Your task to perform on an android device: What's the weather going to be tomorrow? Image 0: 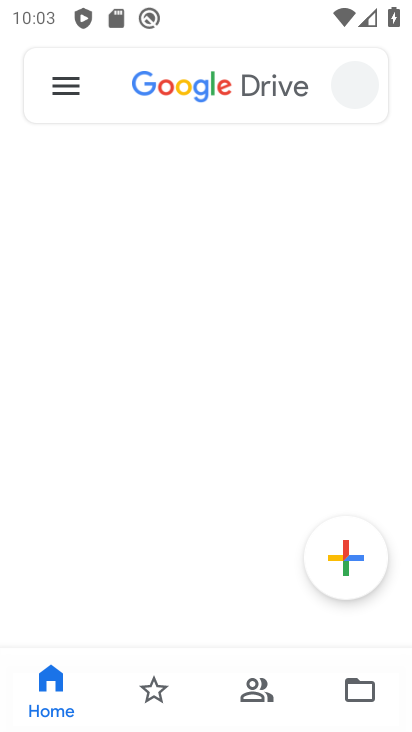
Step 0: drag from (224, 566) to (410, 35)
Your task to perform on an android device: What's the weather going to be tomorrow? Image 1: 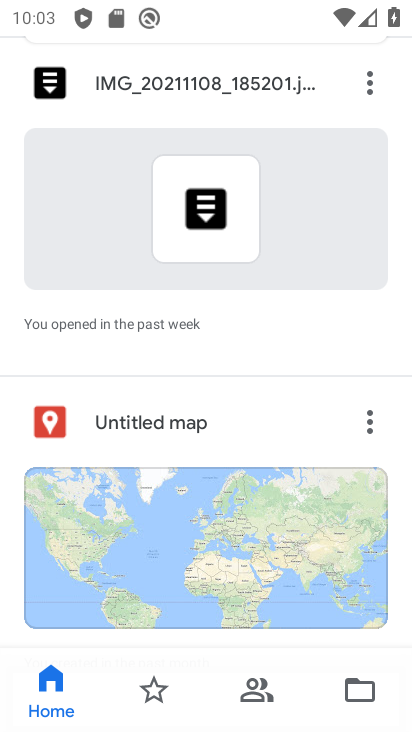
Step 1: press home button
Your task to perform on an android device: What's the weather going to be tomorrow? Image 2: 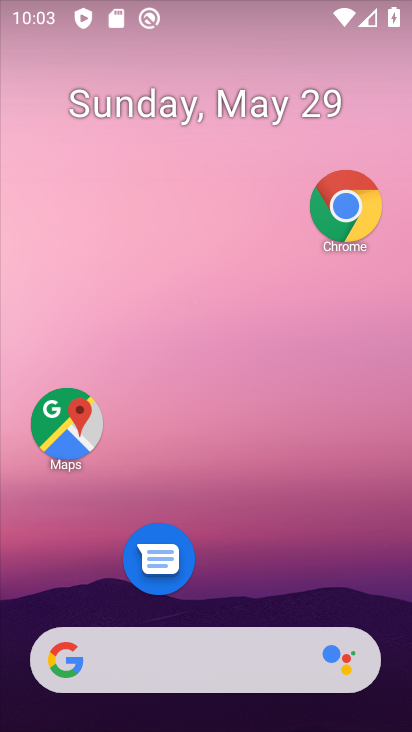
Step 2: drag from (196, 593) to (190, 105)
Your task to perform on an android device: What's the weather going to be tomorrow? Image 3: 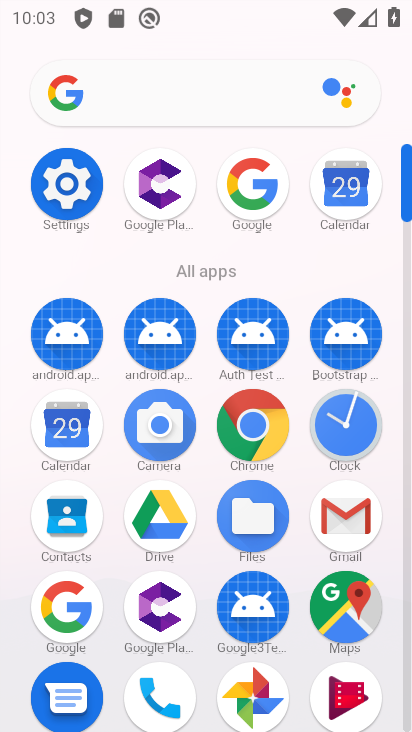
Step 3: click (73, 619)
Your task to perform on an android device: What's the weather going to be tomorrow? Image 4: 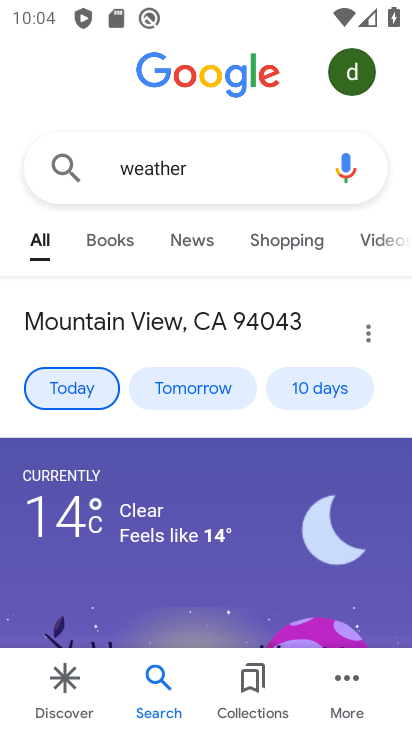
Step 4: click (209, 382)
Your task to perform on an android device: What's the weather going to be tomorrow? Image 5: 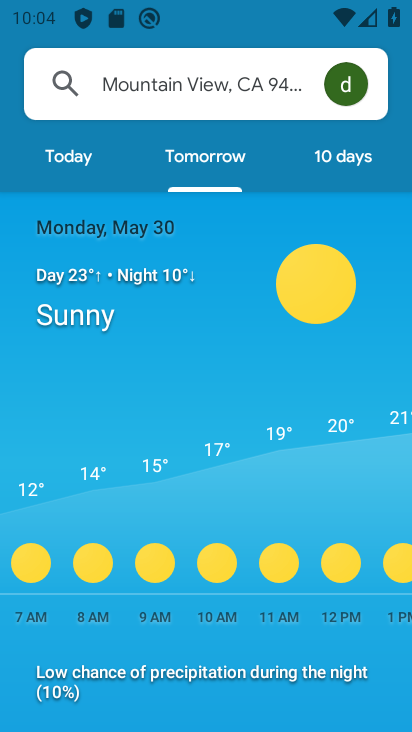
Step 5: task complete